Your task to perform on an android device: turn off improve location accuracy Image 0: 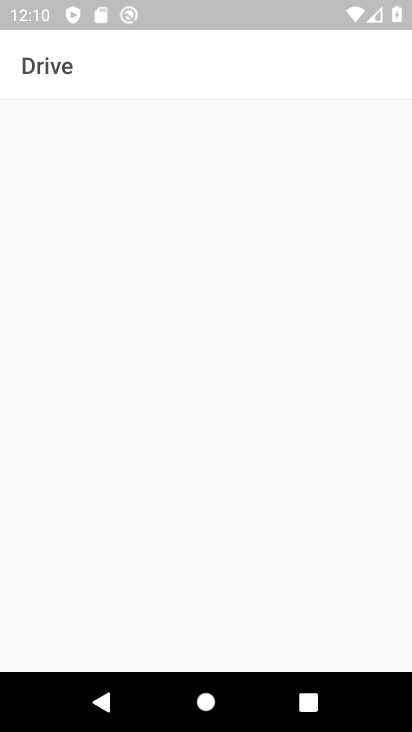
Step 0: press home button
Your task to perform on an android device: turn off improve location accuracy Image 1: 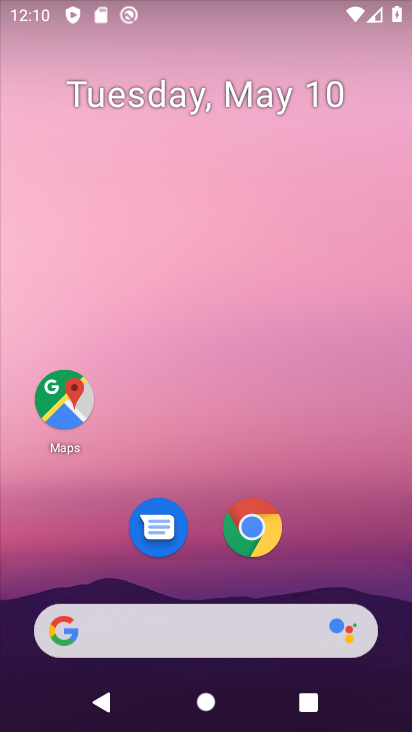
Step 1: drag from (353, 575) to (283, 147)
Your task to perform on an android device: turn off improve location accuracy Image 2: 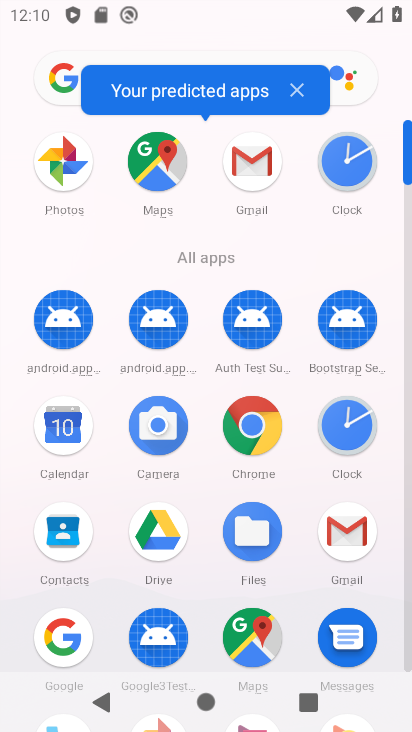
Step 2: drag from (288, 587) to (277, 236)
Your task to perform on an android device: turn off improve location accuracy Image 3: 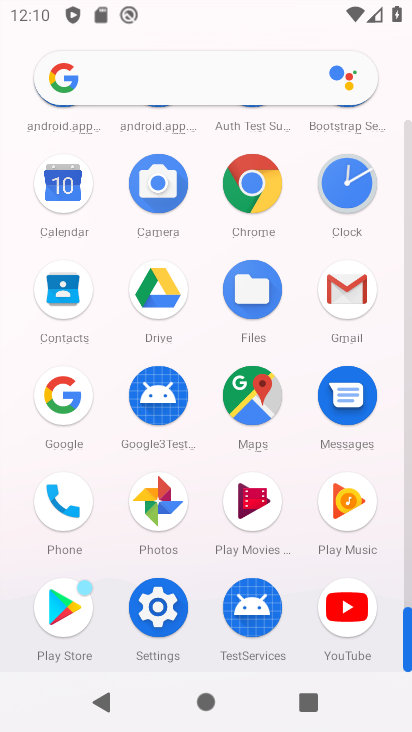
Step 3: click (158, 595)
Your task to perform on an android device: turn off improve location accuracy Image 4: 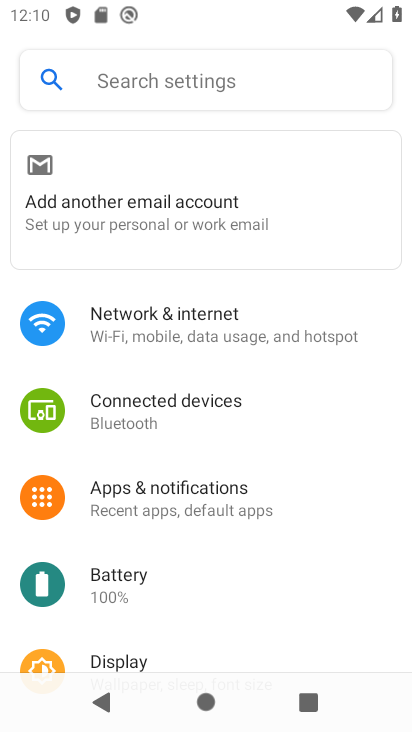
Step 4: drag from (282, 610) to (285, 301)
Your task to perform on an android device: turn off improve location accuracy Image 5: 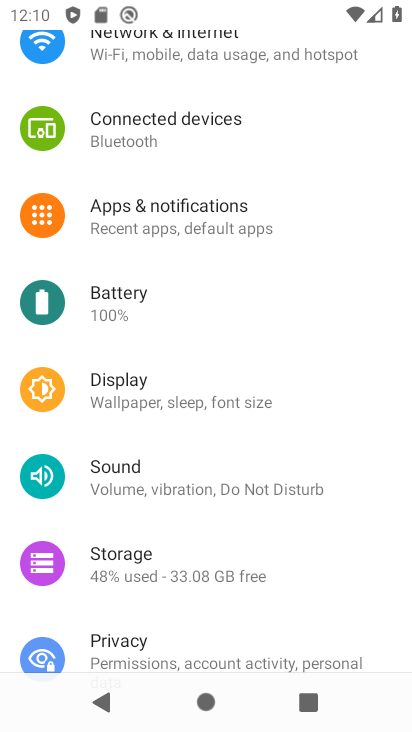
Step 5: drag from (325, 600) to (328, 368)
Your task to perform on an android device: turn off improve location accuracy Image 6: 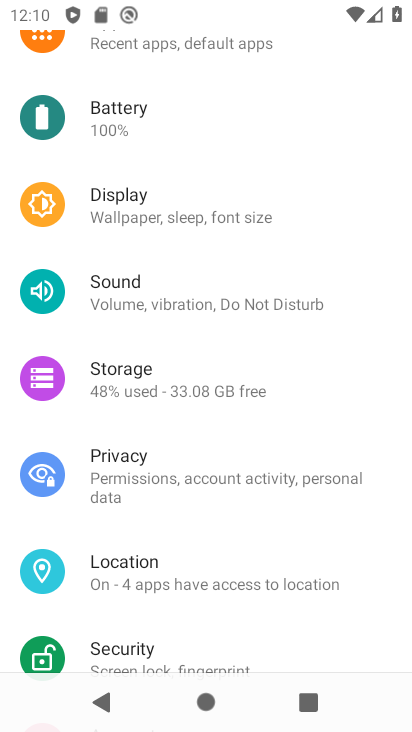
Step 6: click (290, 576)
Your task to perform on an android device: turn off improve location accuracy Image 7: 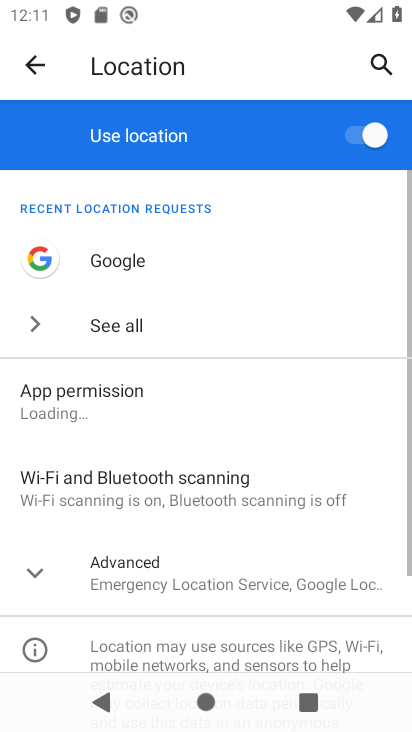
Step 7: click (292, 314)
Your task to perform on an android device: turn off improve location accuracy Image 8: 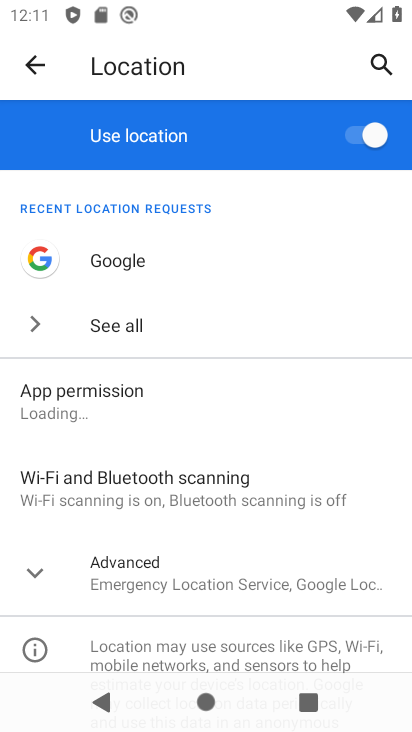
Step 8: click (189, 549)
Your task to perform on an android device: turn off improve location accuracy Image 9: 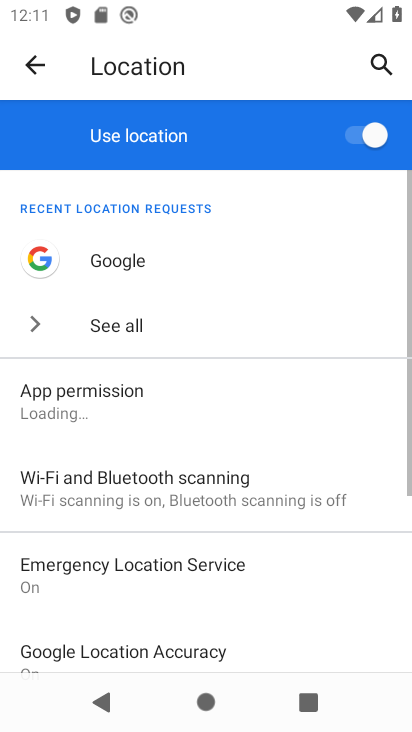
Step 9: drag from (304, 629) to (302, 326)
Your task to perform on an android device: turn off improve location accuracy Image 10: 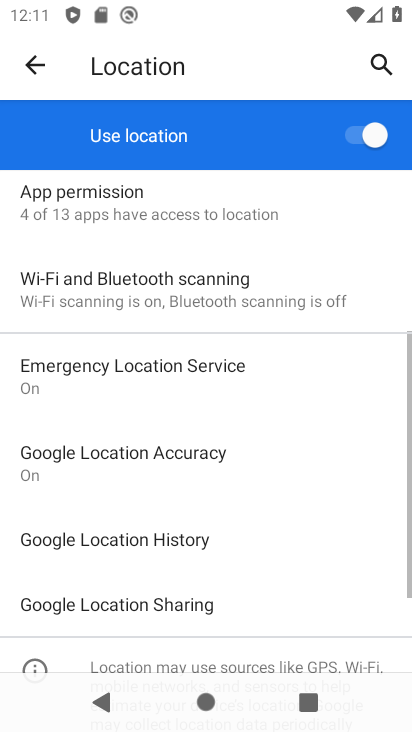
Step 10: click (166, 470)
Your task to perform on an android device: turn off improve location accuracy Image 11: 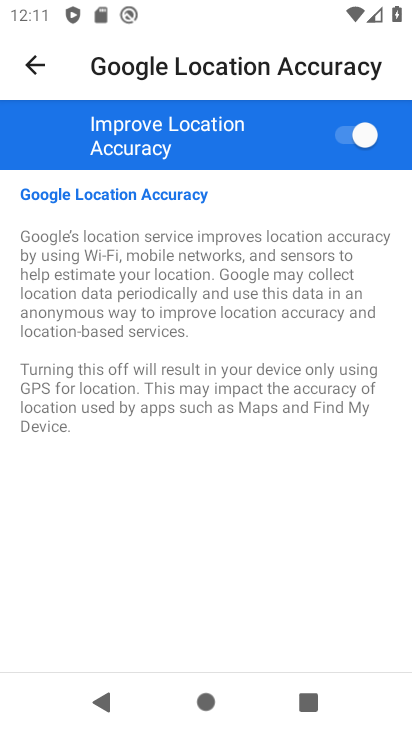
Step 11: click (342, 135)
Your task to perform on an android device: turn off improve location accuracy Image 12: 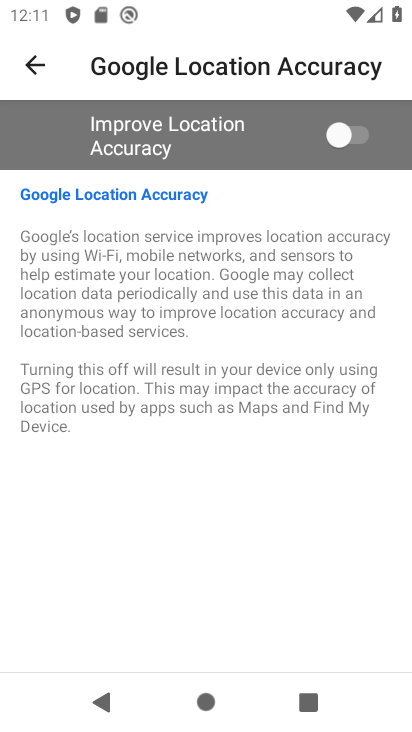
Step 12: task complete